Your task to perform on an android device: turn on notifications settings in the gmail app Image 0: 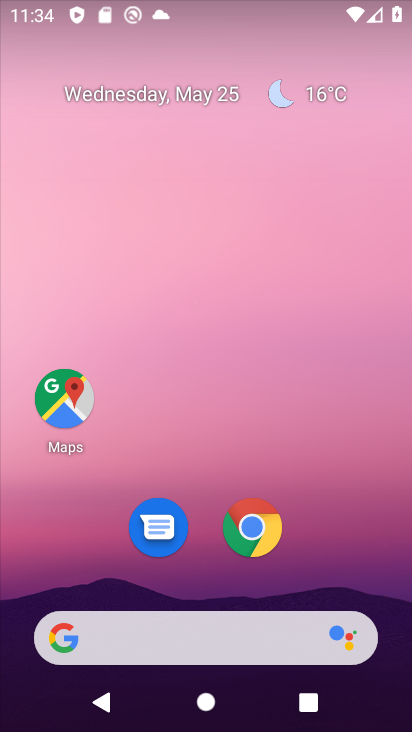
Step 0: drag from (378, 569) to (337, 205)
Your task to perform on an android device: turn on notifications settings in the gmail app Image 1: 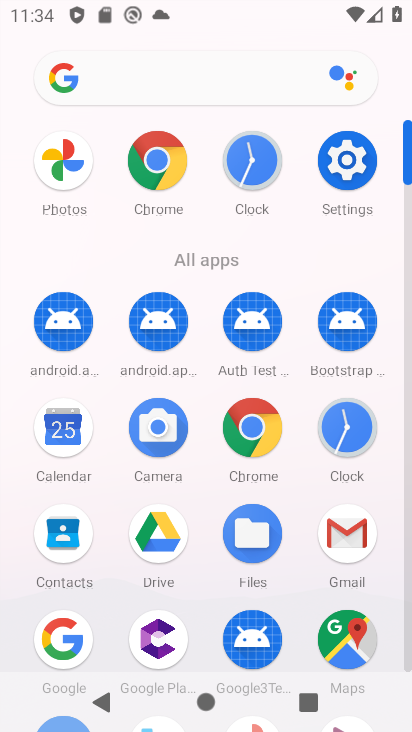
Step 1: click (395, 536)
Your task to perform on an android device: turn on notifications settings in the gmail app Image 2: 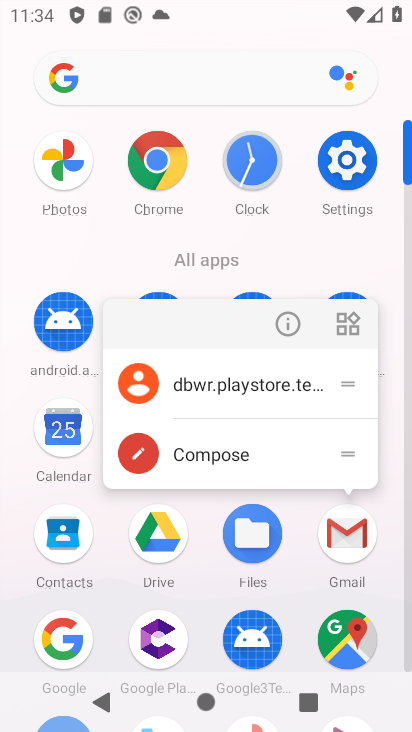
Step 2: click (279, 322)
Your task to perform on an android device: turn on notifications settings in the gmail app Image 3: 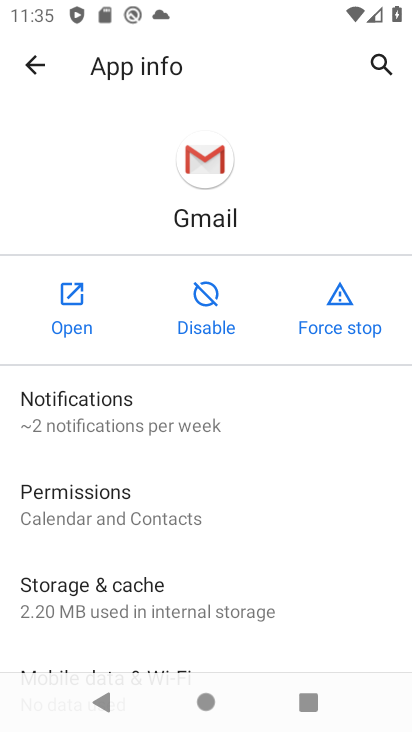
Step 3: click (185, 424)
Your task to perform on an android device: turn on notifications settings in the gmail app Image 4: 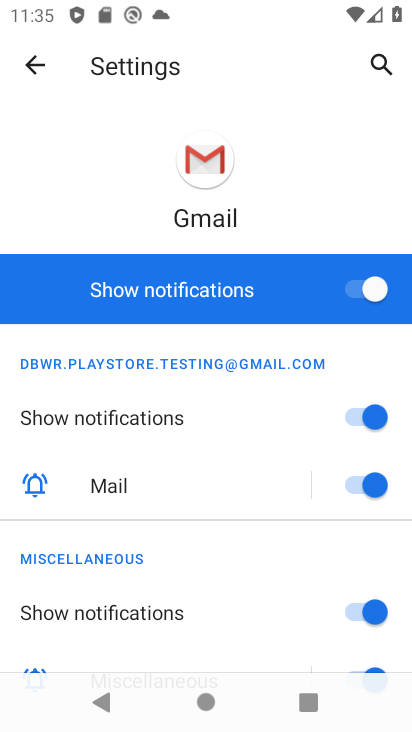
Step 4: task complete